Your task to perform on an android device: Go to location settings Image 0: 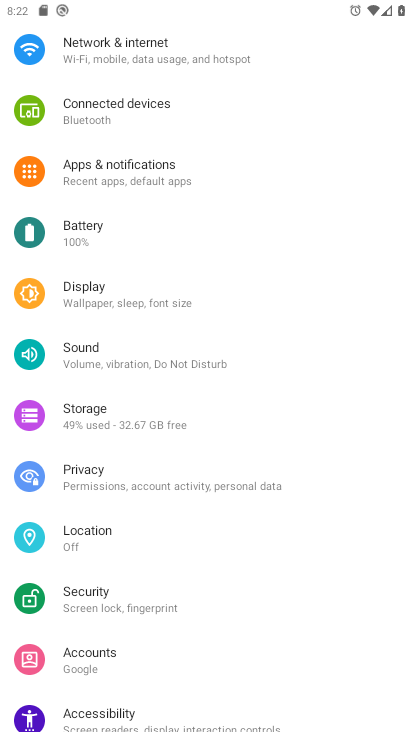
Step 0: click (161, 541)
Your task to perform on an android device: Go to location settings Image 1: 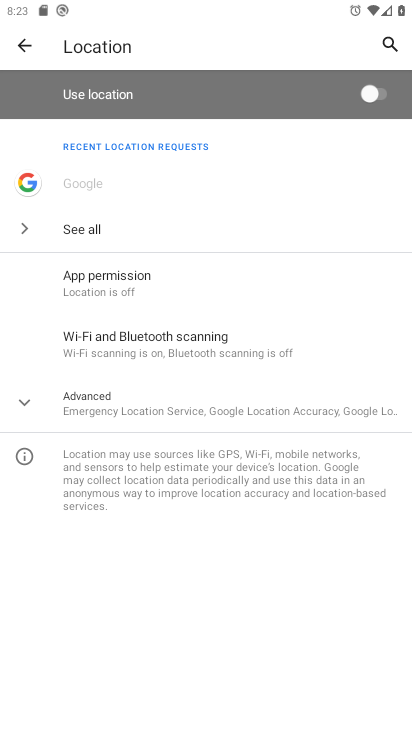
Step 1: task complete